Your task to perform on an android device: Go to internet settings Image 0: 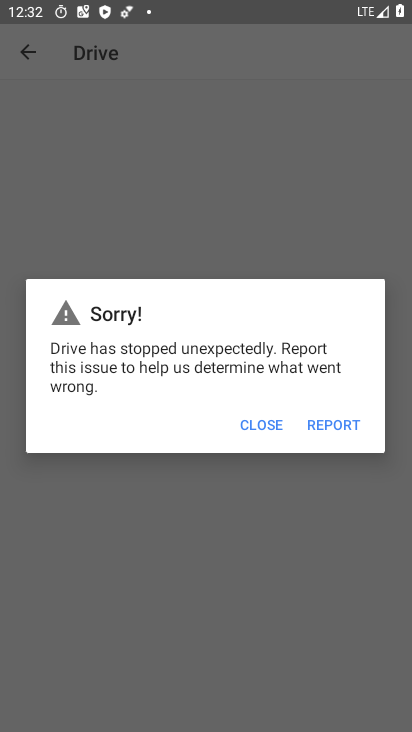
Step 0: press home button
Your task to perform on an android device: Go to internet settings Image 1: 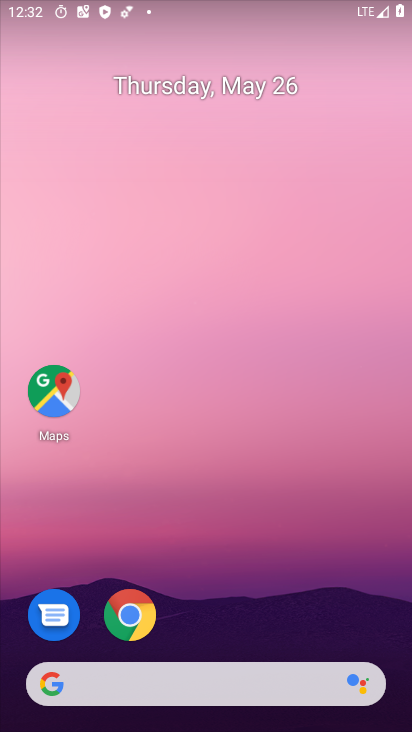
Step 1: drag from (260, 620) to (222, 221)
Your task to perform on an android device: Go to internet settings Image 2: 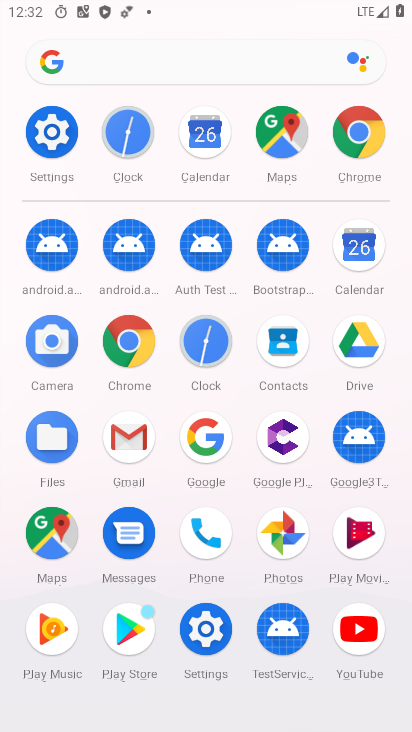
Step 2: click (44, 136)
Your task to perform on an android device: Go to internet settings Image 3: 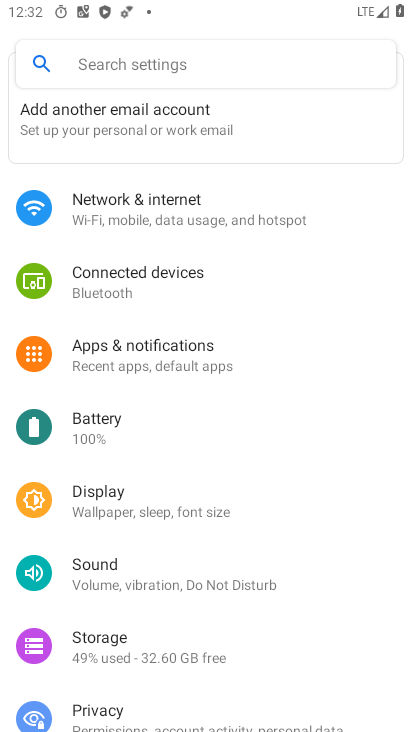
Step 3: click (83, 206)
Your task to perform on an android device: Go to internet settings Image 4: 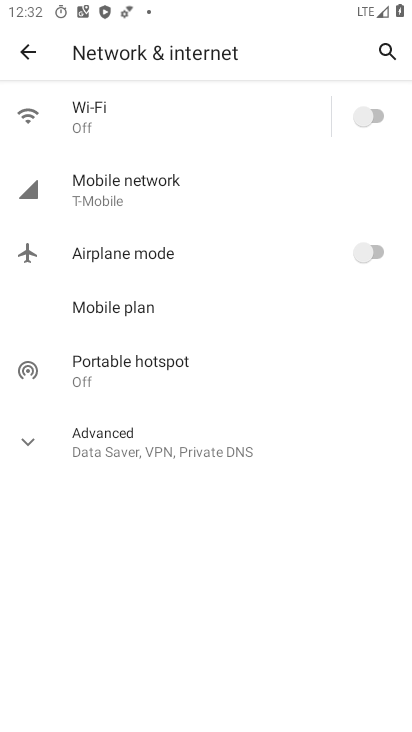
Step 4: task complete